Your task to perform on an android device: Go to display settings Image 0: 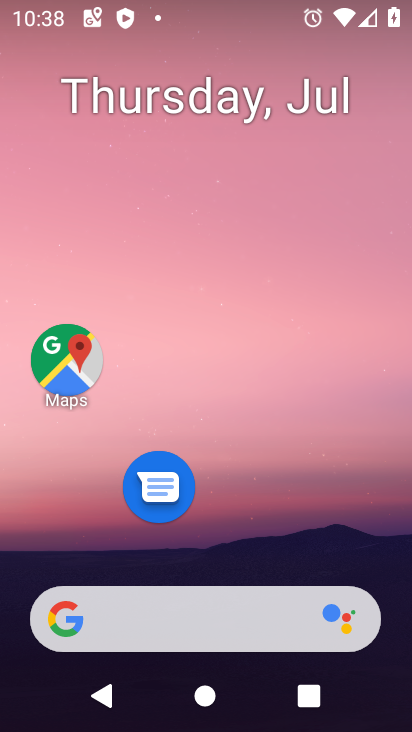
Step 0: drag from (212, 538) to (267, 50)
Your task to perform on an android device: Go to display settings Image 1: 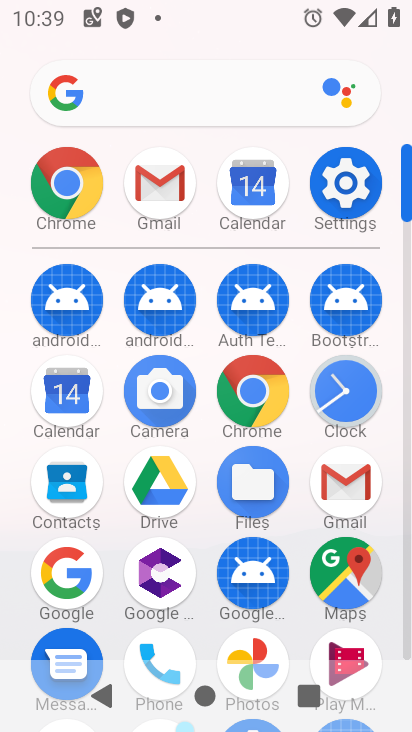
Step 1: click (348, 195)
Your task to perform on an android device: Go to display settings Image 2: 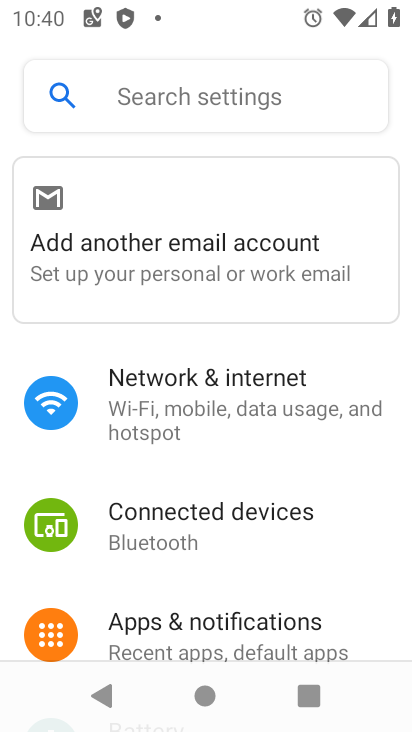
Step 2: drag from (236, 547) to (270, 305)
Your task to perform on an android device: Go to display settings Image 3: 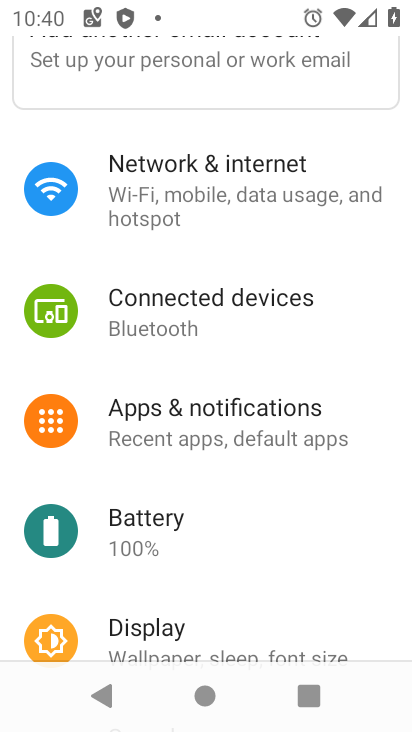
Step 3: drag from (196, 556) to (203, 309)
Your task to perform on an android device: Go to display settings Image 4: 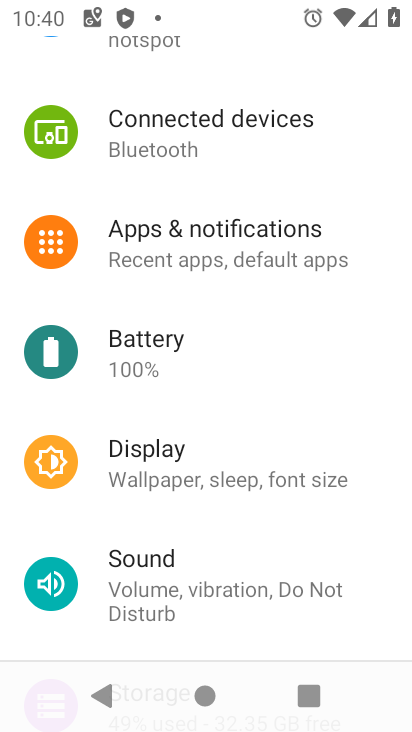
Step 4: drag from (190, 506) to (181, 107)
Your task to perform on an android device: Go to display settings Image 5: 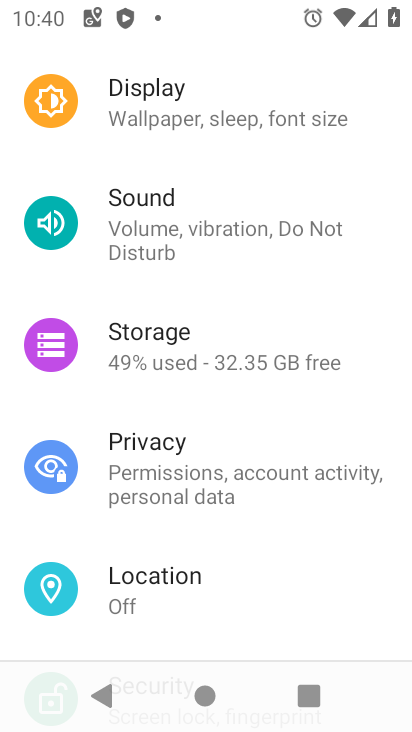
Step 5: drag from (261, 269) to (219, 585)
Your task to perform on an android device: Go to display settings Image 6: 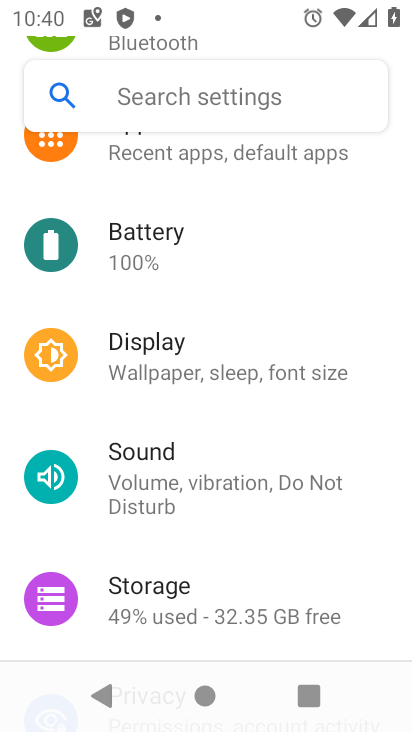
Step 6: click (219, 365)
Your task to perform on an android device: Go to display settings Image 7: 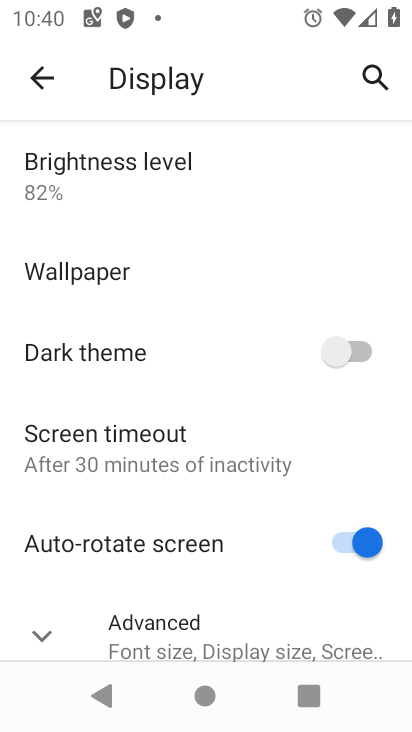
Step 7: task complete